Your task to perform on an android device: Open calendar and show me the second week of next month Image 0: 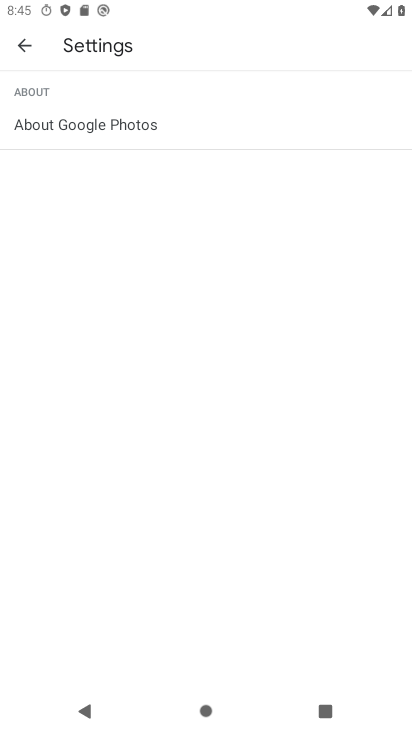
Step 0: drag from (222, 636) to (166, 151)
Your task to perform on an android device: Open calendar and show me the second week of next month Image 1: 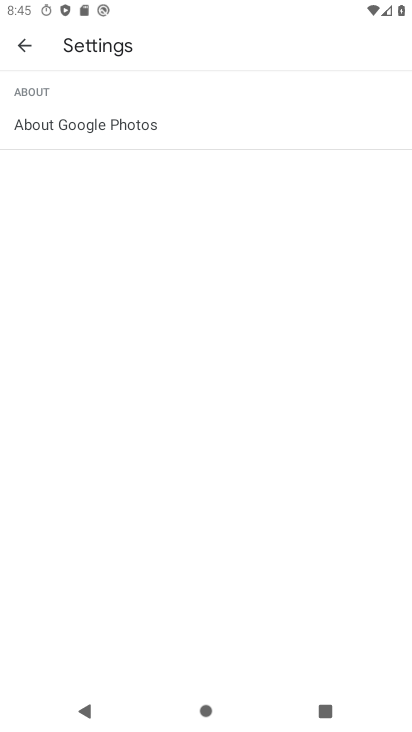
Step 1: click (19, 45)
Your task to perform on an android device: Open calendar and show me the second week of next month Image 2: 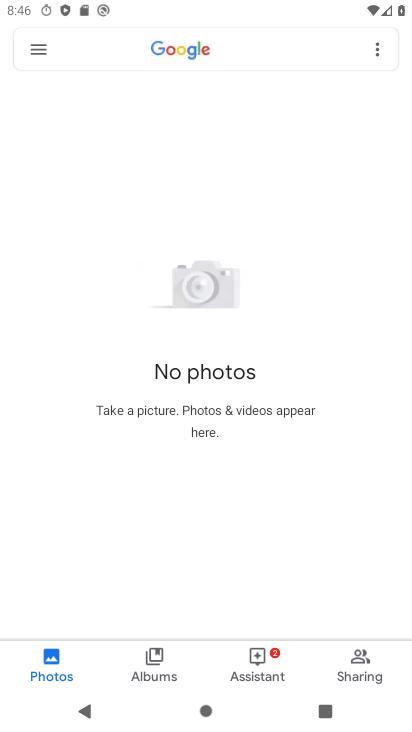
Step 2: press back button
Your task to perform on an android device: Open calendar and show me the second week of next month Image 3: 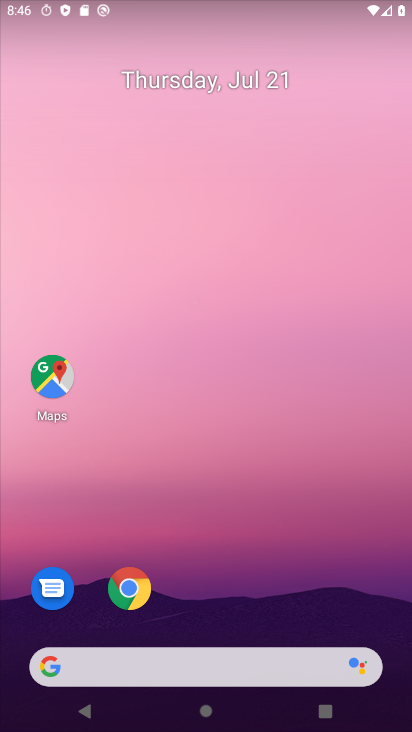
Step 3: drag from (224, 532) to (144, 2)
Your task to perform on an android device: Open calendar and show me the second week of next month Image 4: 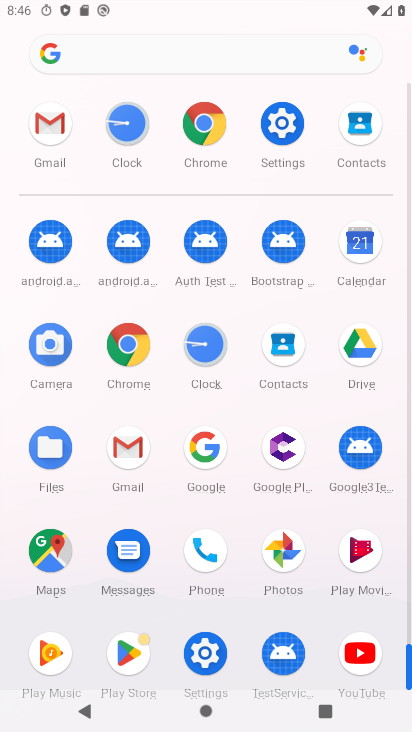
Step 4: click (366, 241)
Your task to perform on an android device: Open calendar and show me the second week of next month Image 5: 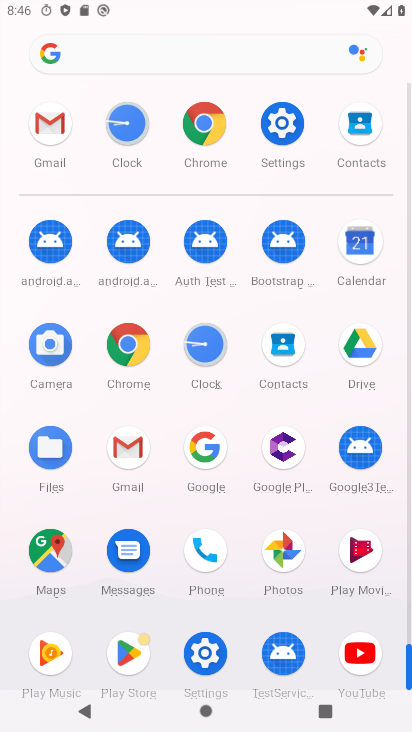
Step 5: click (366, 241)
Your task to perform on an android device: Open calendar and show me the second week of next month Image 6: 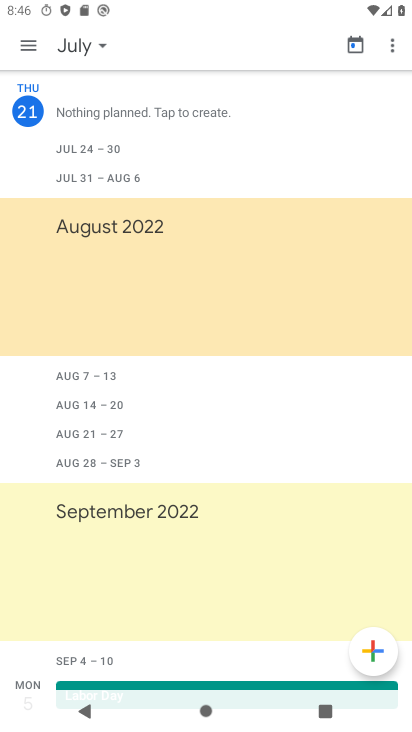
Step 6: click (103, 46)
Your task to perform on an android device: Open calendar and show me the second week of next month Image 7: 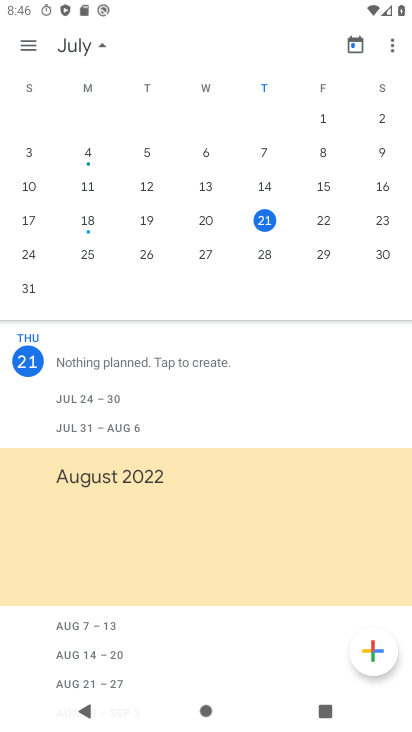
Step 7: drag from (331, 201) to (58, 205)
Your task to perform on an android device: Open calendar and show me the second week of next month Image 8: 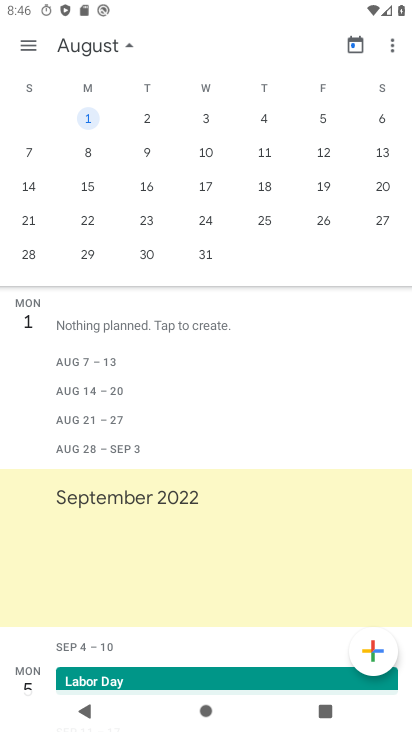
Step 8: click (143, 151)
Your task to perform on an android device: Open calendar and show me the second week of next month Image 9: 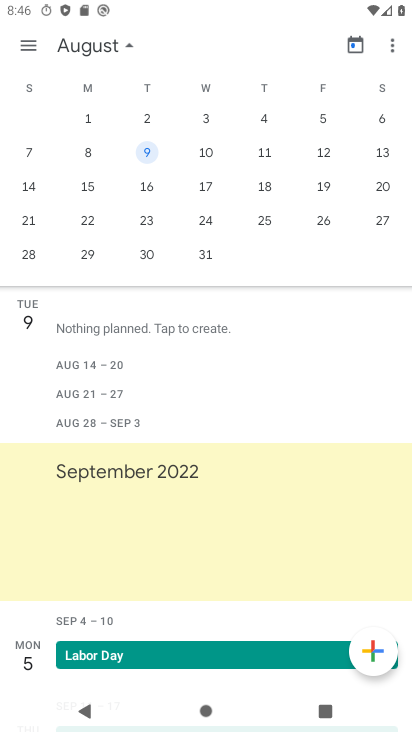
Step 9: task complete